Your task to perform on an android device: delete location history Image 0: 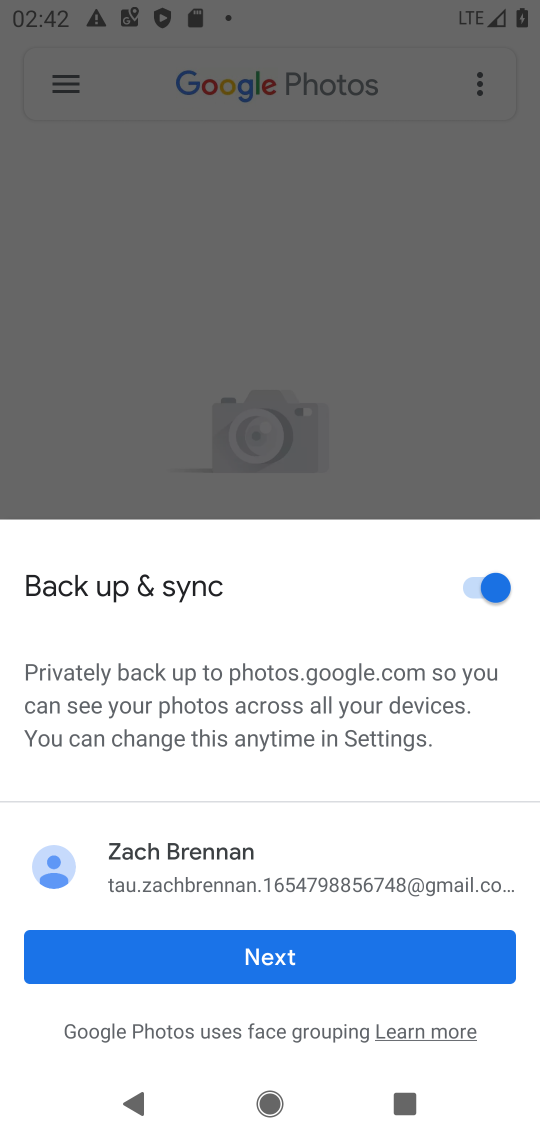
Step 0: press home button
Your task to perform on an android device: delete location history Image 1: 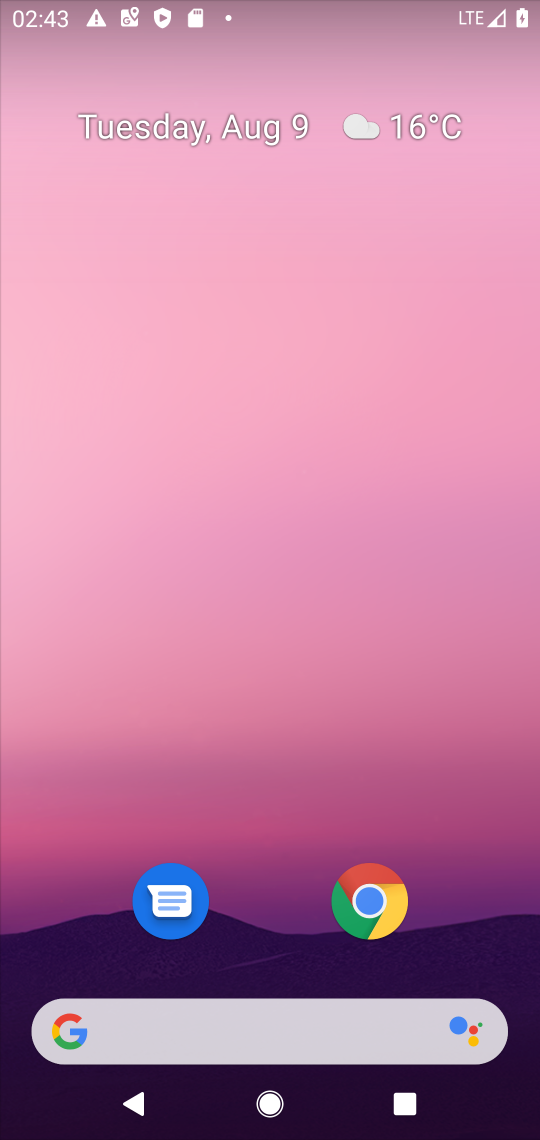
Step 1: drag from (456, 968) to (447, 235)
Your task to perform on an android device: delete location history Image 2: 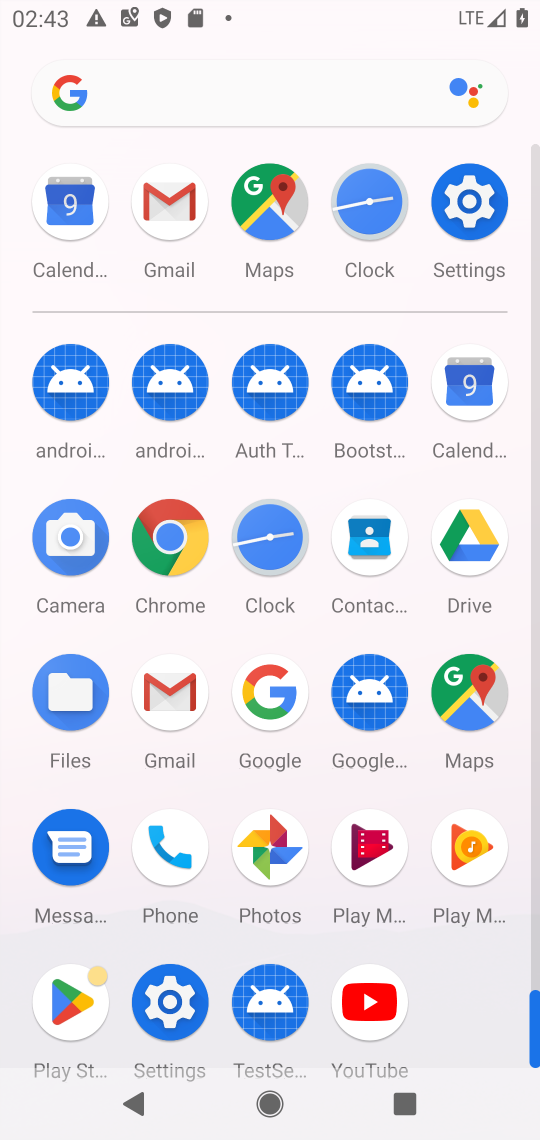
Step 2: click (470, 693)
Your task to perform on an android device: delete location history Image 3: 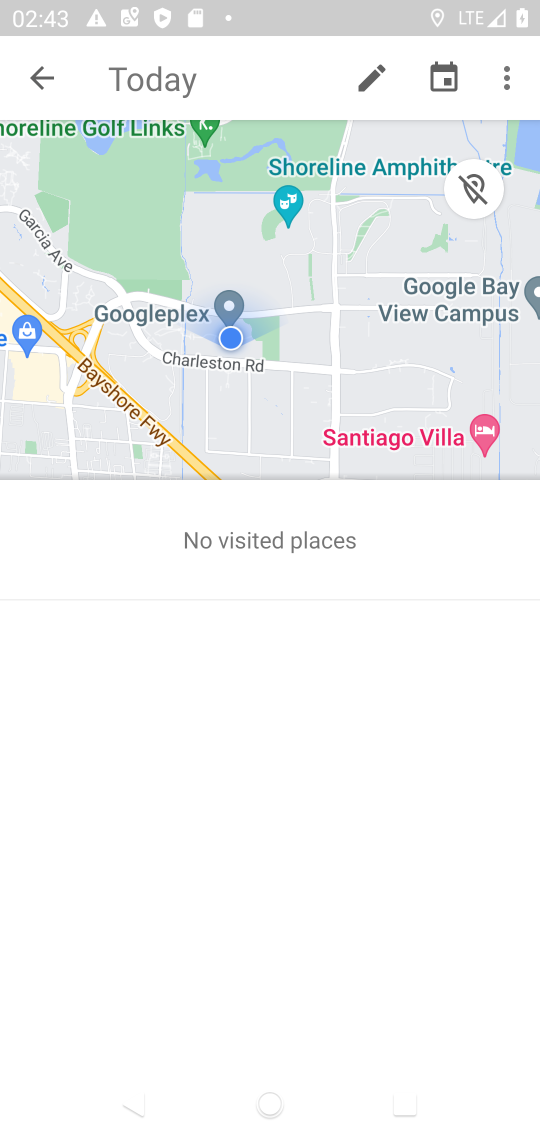
Step 3: press back button
Your task to perform on an android device: delete location history Image 4: 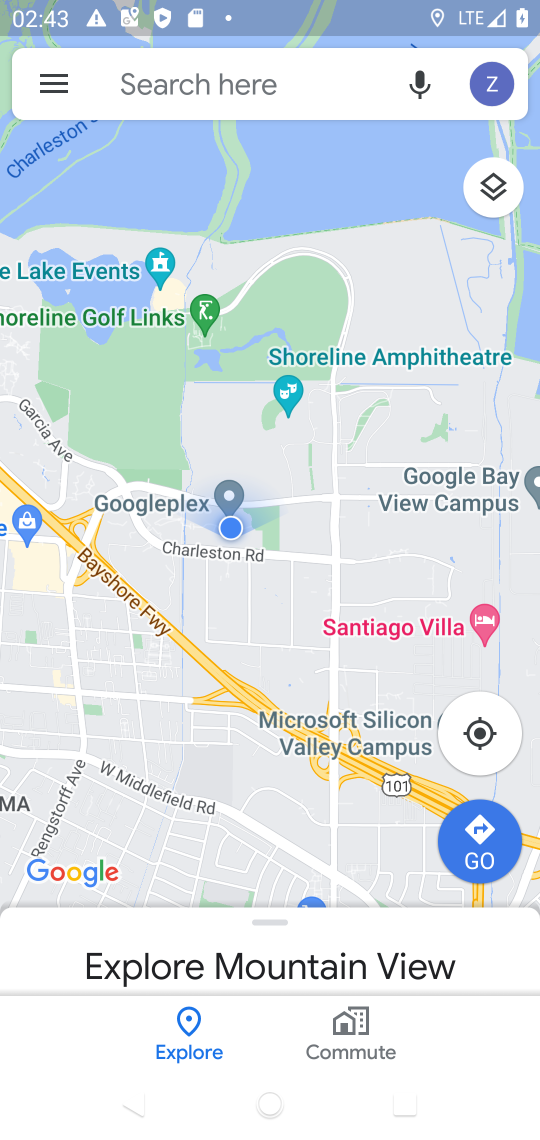
Step 4: click (62, 88)
Your task to perform on an android device: delete location history Image 5: 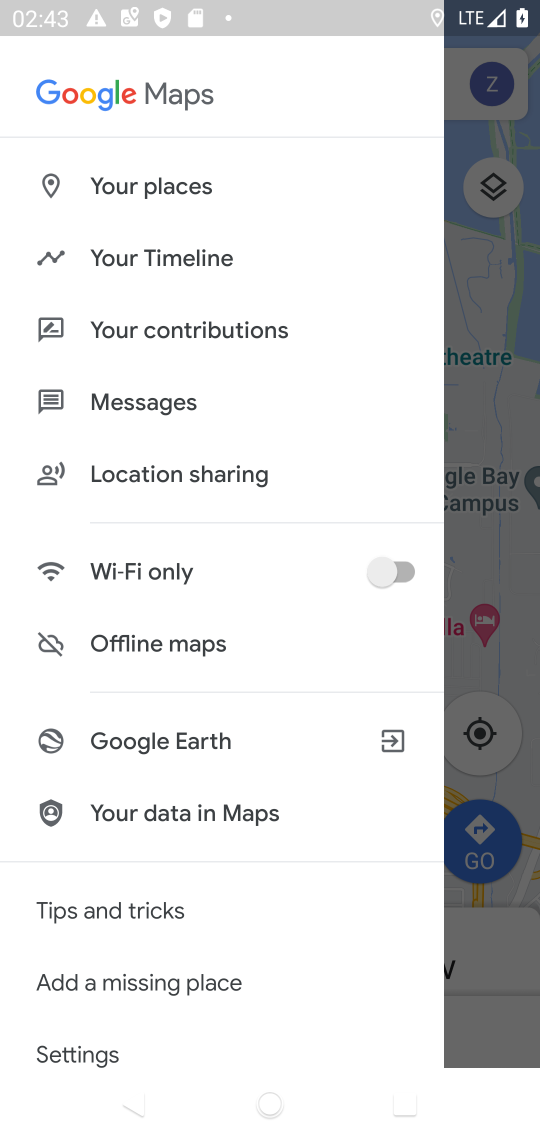
Step 5: drag from (268, 1002) to (321, 445)
Your task to perform on an android device: delete location history Image 6: 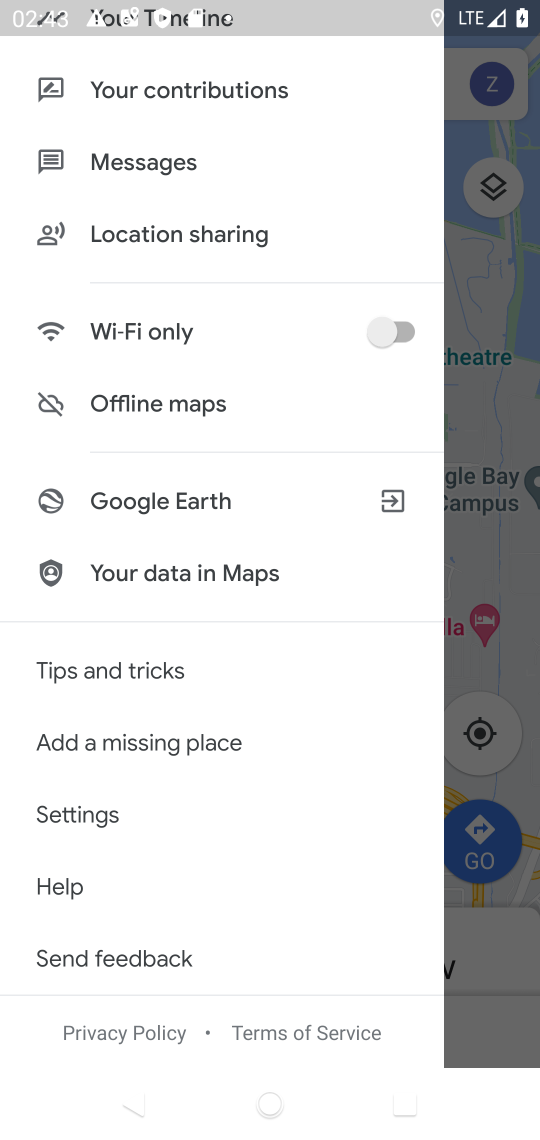
Step 6: click (67, 814)
Your task to perform on an android device: delete location history Image 7: 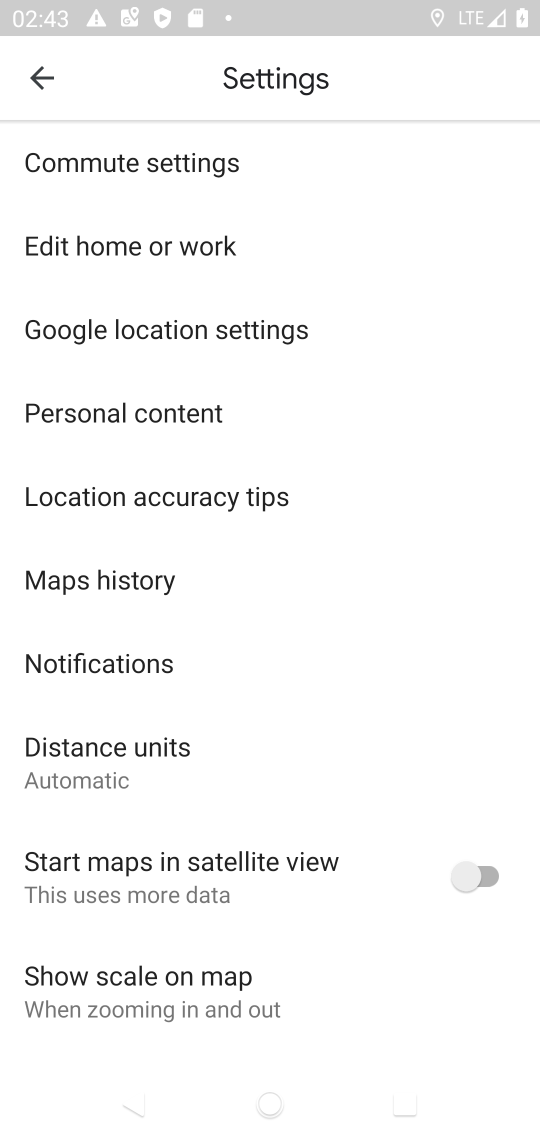
Step 7: click (144, 403)
Your task to perform on an android device: delete location history Image 8: 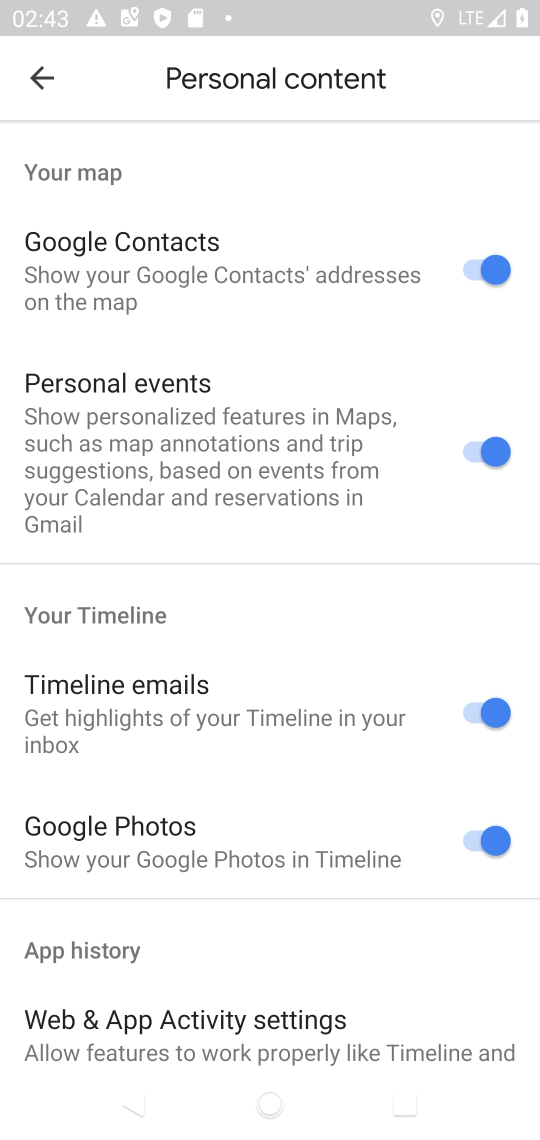
Step 8: drag from (391, 955) to (416, 370)
Your task to perform on an android device: delete location history Image 9: 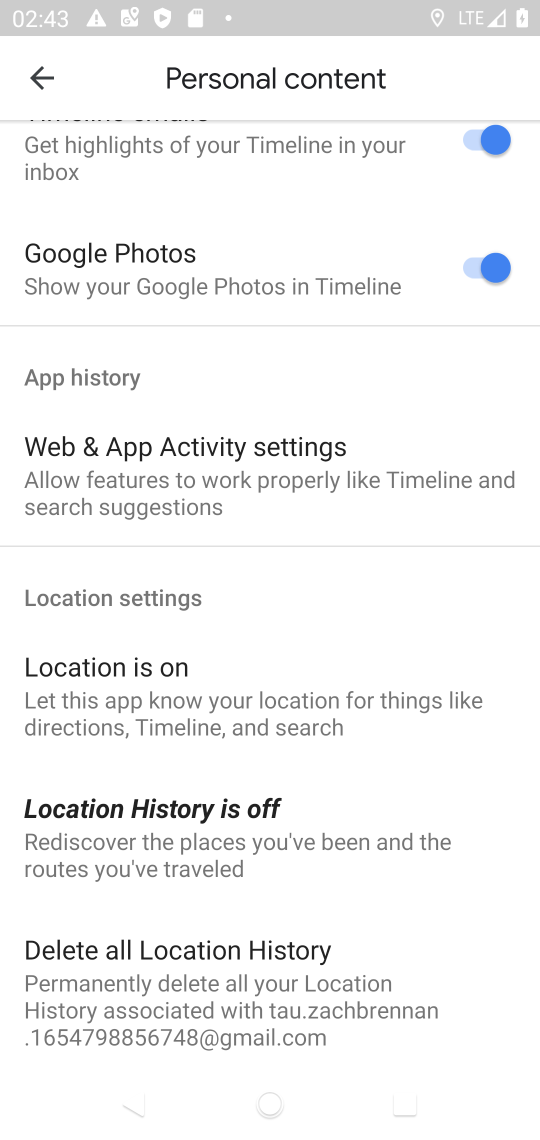
Step 9: drag from (394, 925) to (405, 474)
Your task to perform on an android device: delete location history Image 10: 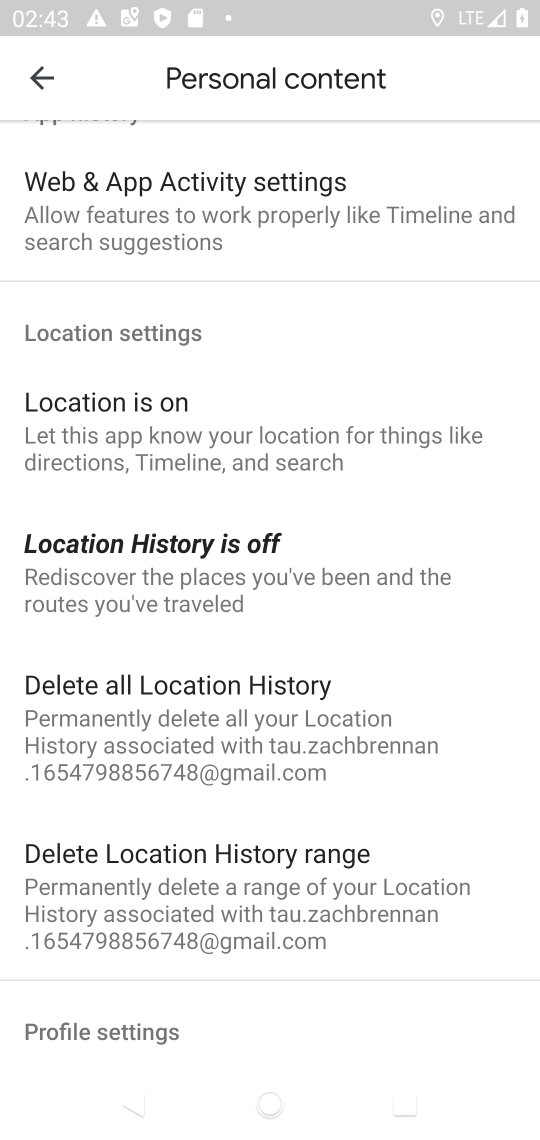
Step 10: click (135, 707)
Your task to perform on an android device: delete location history Image 11: 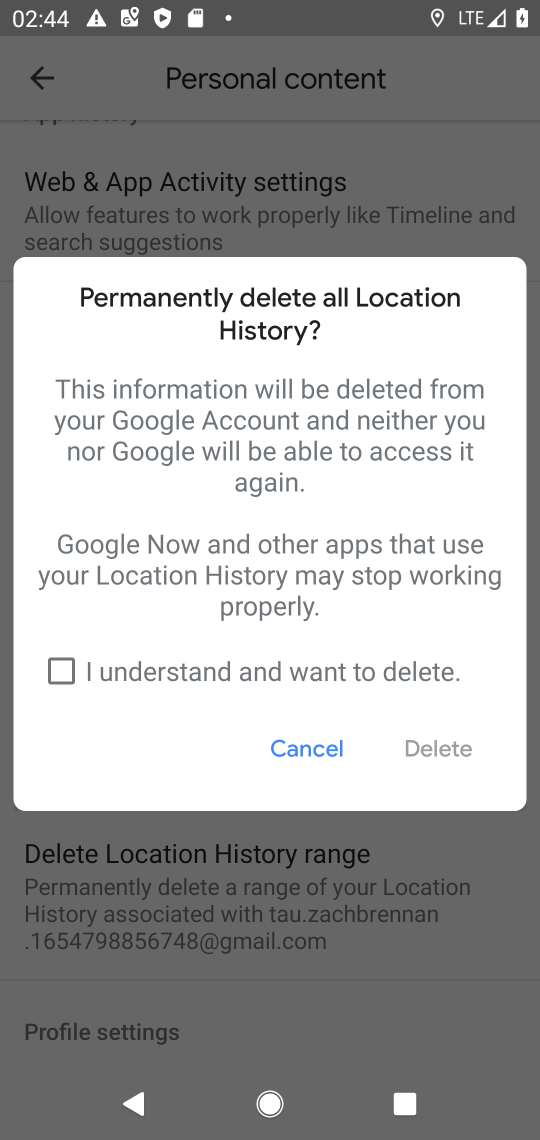
Step 11: click (70, 660)
Your task to perform on an android device: delete location history Image 12: 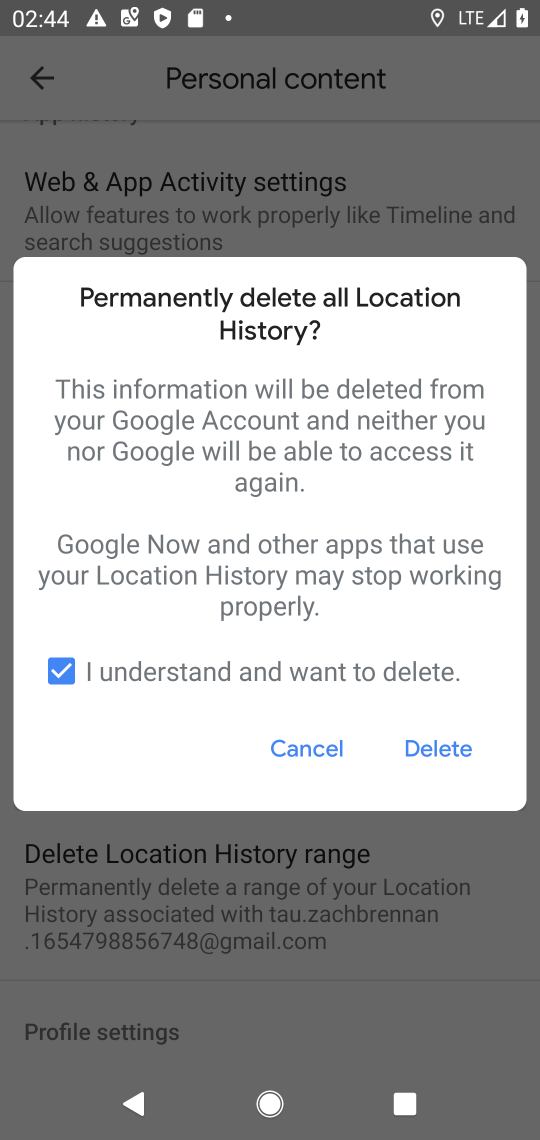
Step 12: click (441, 753)
Your task to perform on an android device: delete location history Image 13: 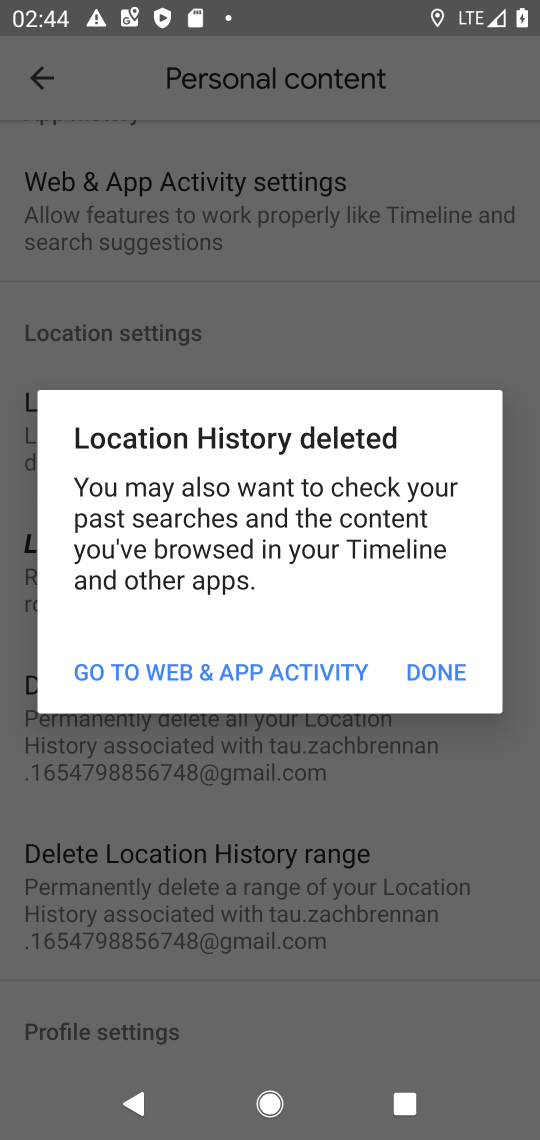
Step 13: click (433, 668)
Your task to perform on an android device: delete location history Image 14: 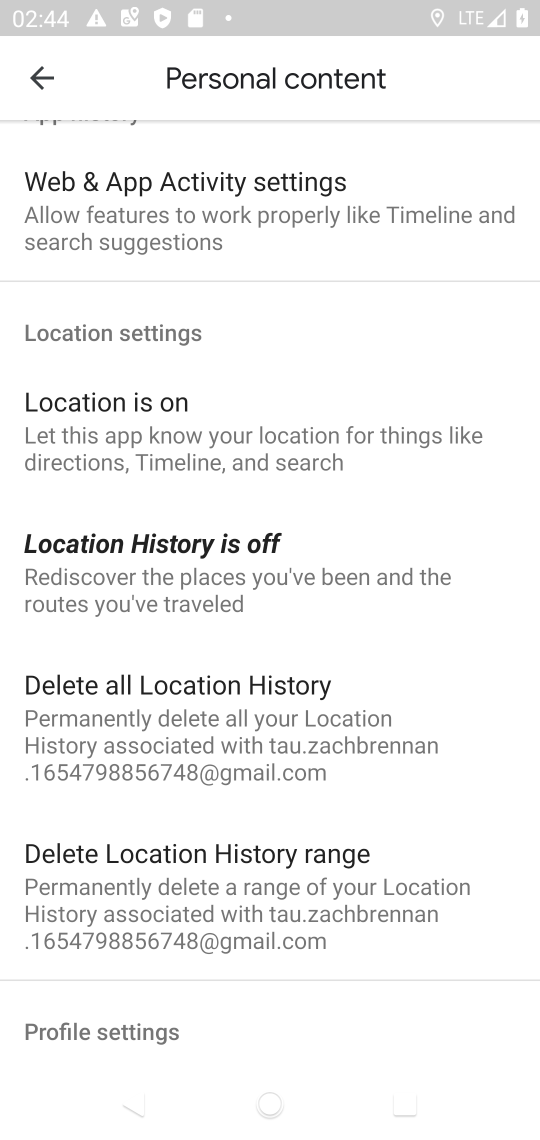
Step 14: task complete